Your task to perform on an android device: Open calendar and show me the third week of next month Image 0: 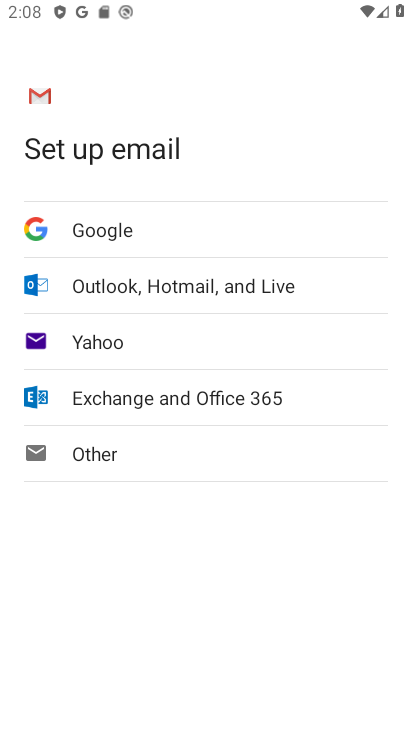
Step 0: press home button
Your task to perform on an android device: Open calendar and show me the third week of next month Image 1: 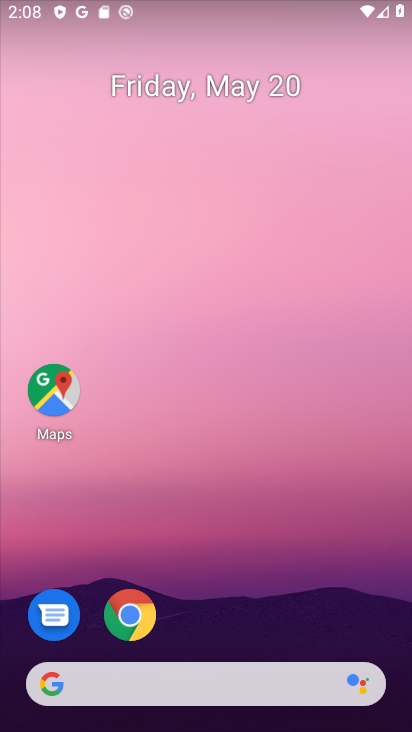
Step 1: drag from (281, 626) to (207, 75)
Your task to perform on an android device: Open calendar and show me the third week of next month Image 2: 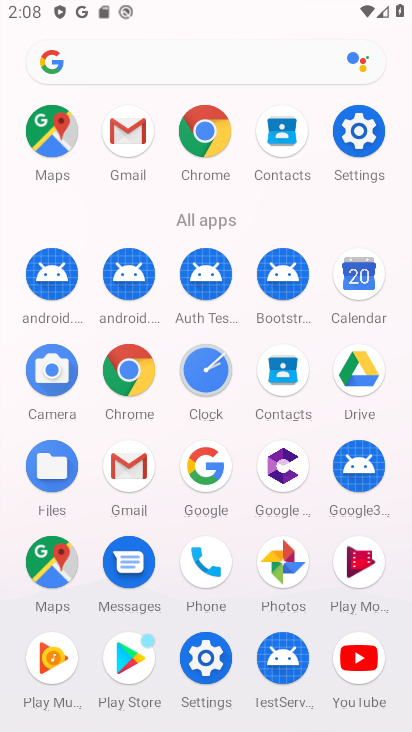
Step 2: click (354, 277)
Your task to perform on an android device: Open calendar and show me the third week of next month Image 3: 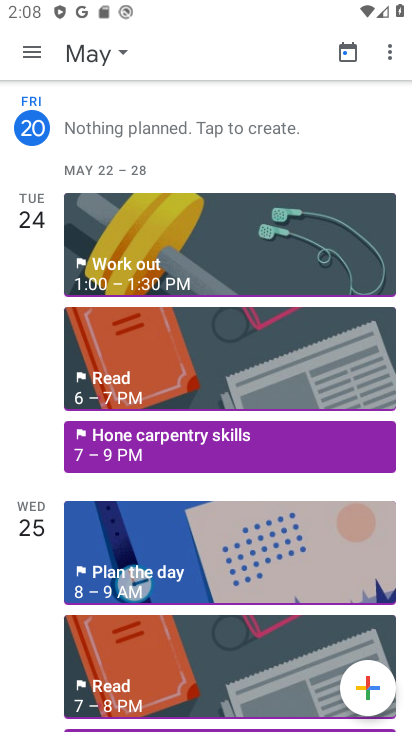
Step 3: click (89, 52)
Your task to perform on an android device: Open calendar and show me the third week of next month Image 4: 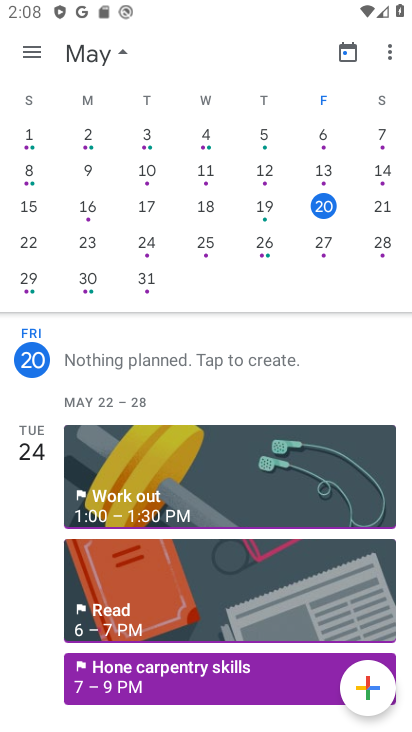
Step 4: click (35, 46)
Your task to perform on an android device: Open calendar and show me the third week of next month Image 5: 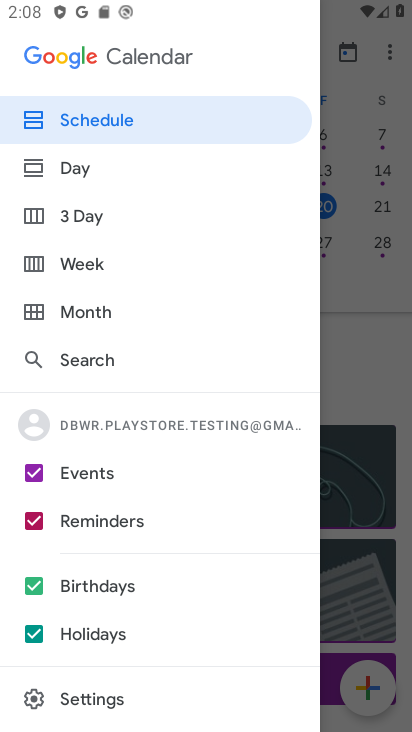
Step 5: click (110, 268)
Your task to perform on an android device: Open calendar and show me the third week of next month Image 6: 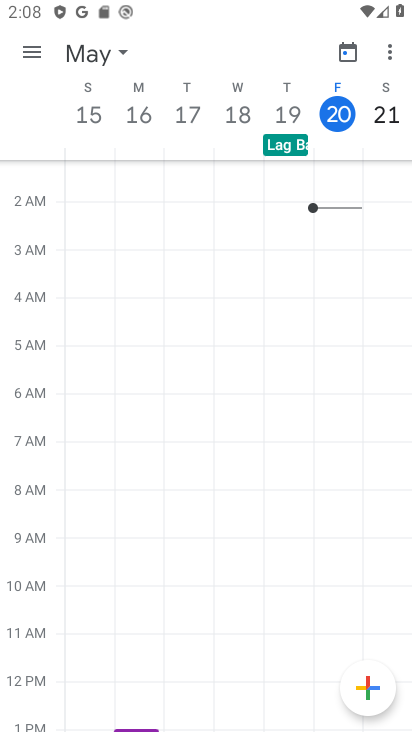
Step 6: click (123, 55)
Your task to perform on an android device: Open calendar and show me the third week of next month Image 7: 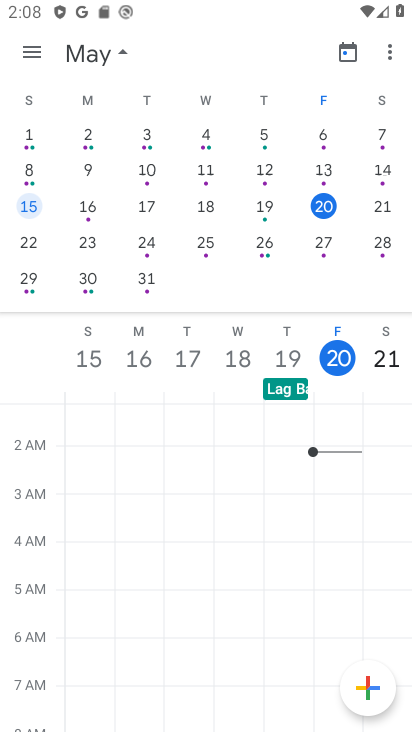
Step 7: drag from (376, 181) to (8, 204)
Your task to perform on an android device: Open calendar and show me the third week of next month Image 8: 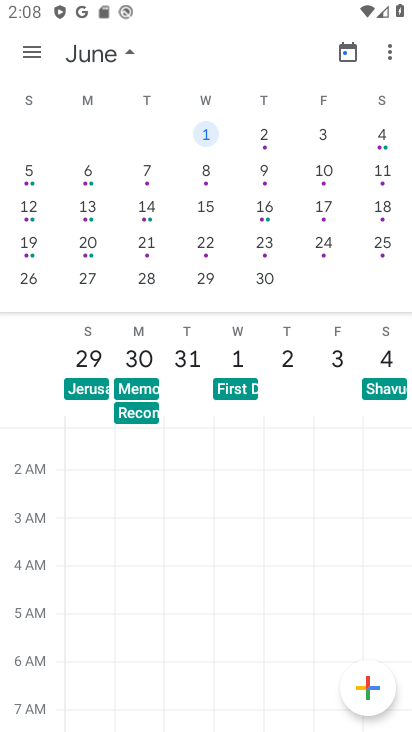
Step 8: click (80, 233)
Your task to perform on an android device: Open calendar and show me the third week of next month Image 9: 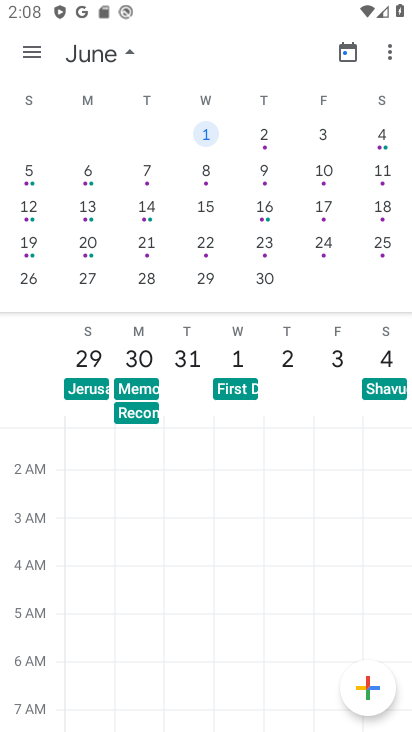
Step 9: click (85, 209)
Your task to perform on an android device: Open calendar and show me the third week of next month Image 10: 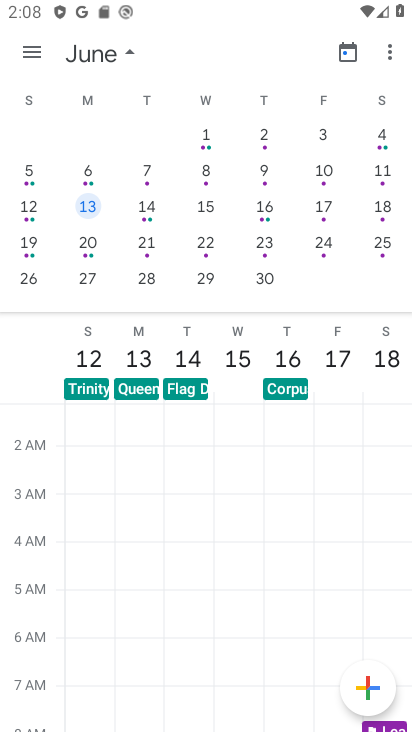
Step 10: task complete